Your task to perform on an android device: toggle notifications settings in the gmail app Image 0: 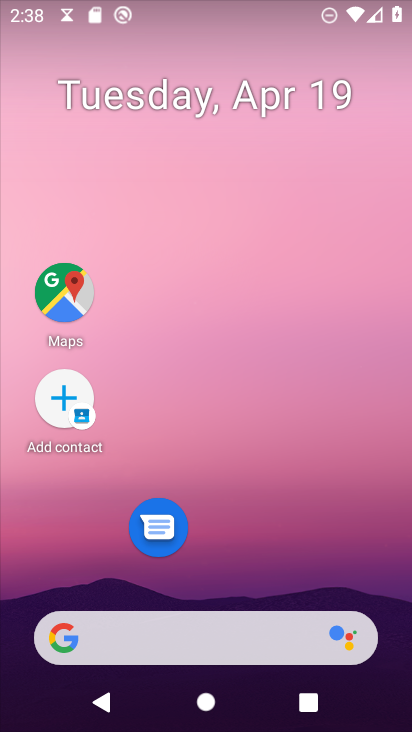
Step 0: drag from (251, 567) to (271, 151)
Your task to perform on an android device: toggle notifications settings in the gmail app Image 1: 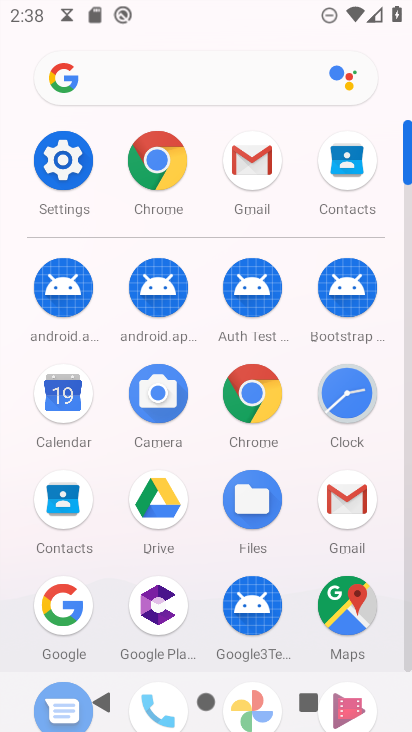
Step 1: click (344, 495)
Your task to perform on an android device: toggle notifications settings in the gmail app Image 2: 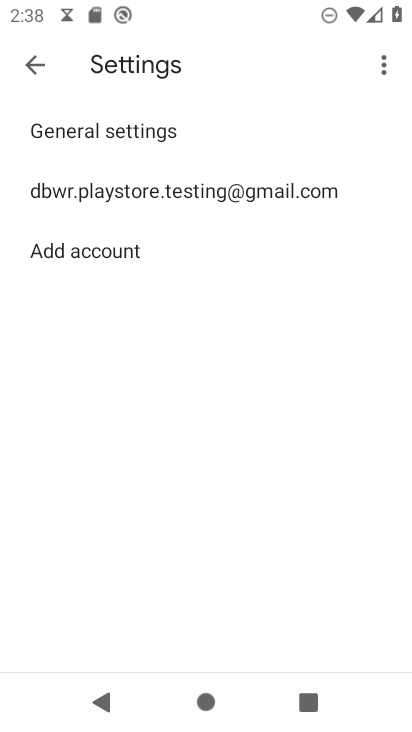
Step 2: click (157, 187)
Your task to perform on an android device: toggle notifications settings in the gmail app Image 3: 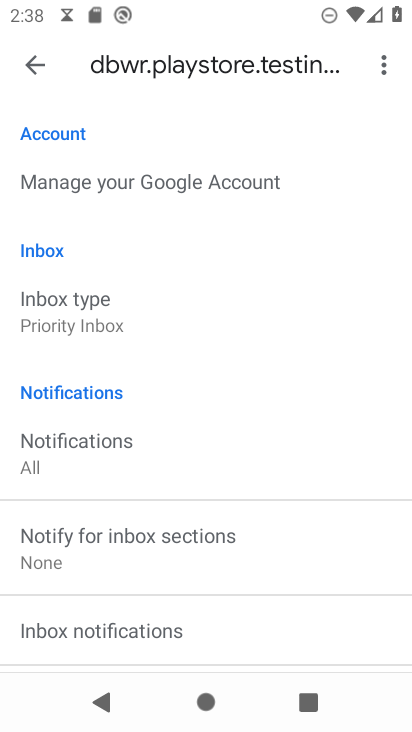
Step 3: drag from (126, 476) to (117, 365)
Your task to perform on an android device: toggle notifications settings in the gmail app Image 4: 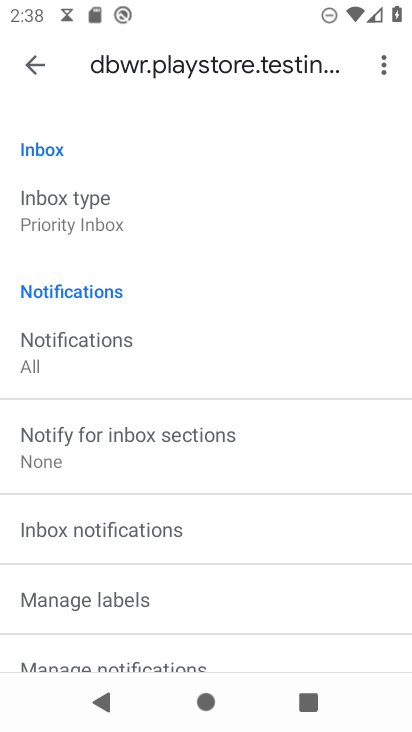
Step 4: drag from (136, 579) to (148, 396)
Your task to perform on an android device: toggle notifications settings in the gmail app Image 5: 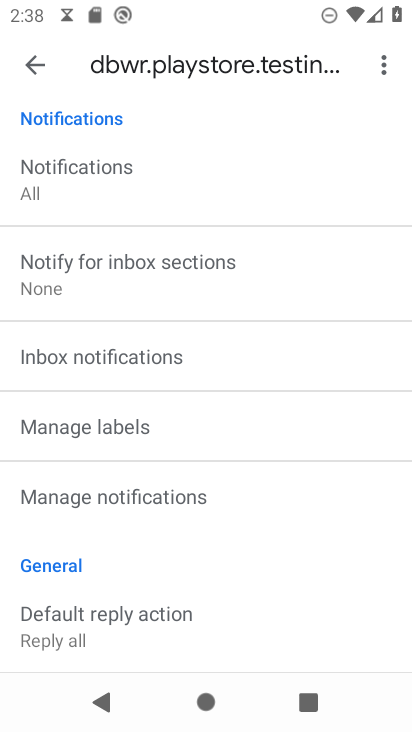
Step 5: click (130, 496)
Your task to perform on an android device: toggle notifications settings in the gmail app Image 6: 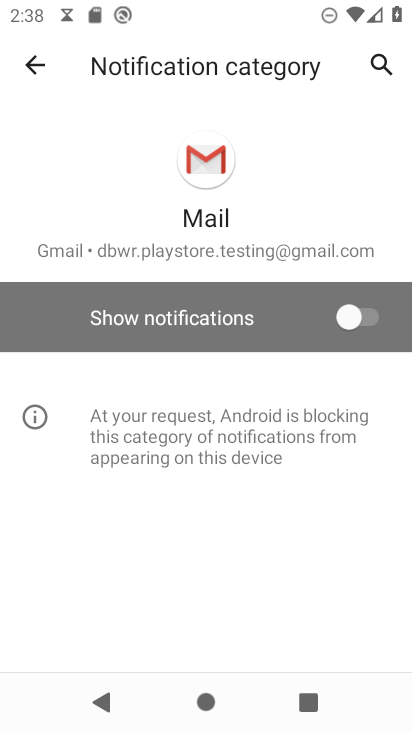
Step 6: click (347, 308)
Your task to perform on an android device: toggle notifications settings in the gmail app Image 7: 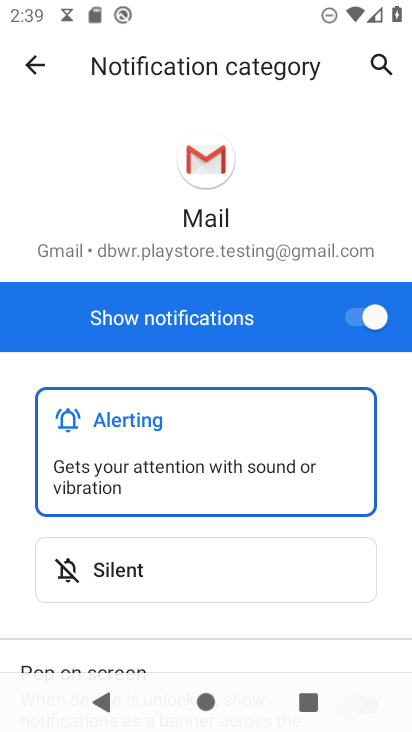
Step 7: task complete